Your task to perform on an android device: Go to sound settings Image 0: 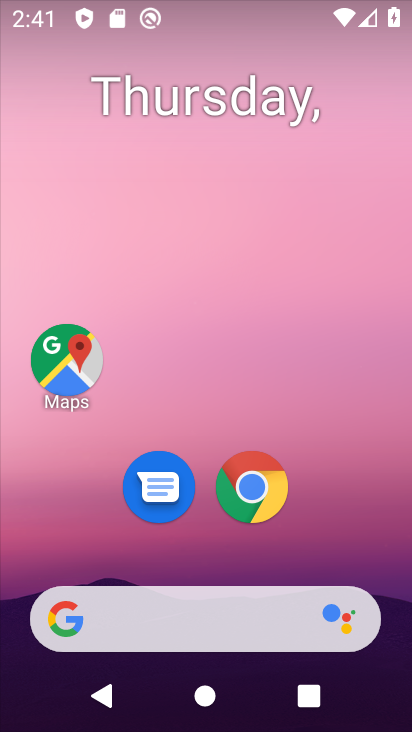
Step 0: drag from (355, 499) to (250, 0)
Your task to perform on an android device: Go to sound settings Image 1: 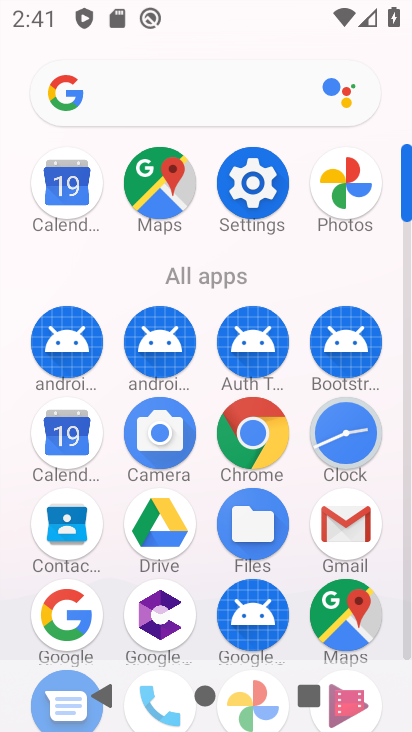
Step 1: click (249, 199)
Your task to perform on an android device: Go to sound settings Image 2: 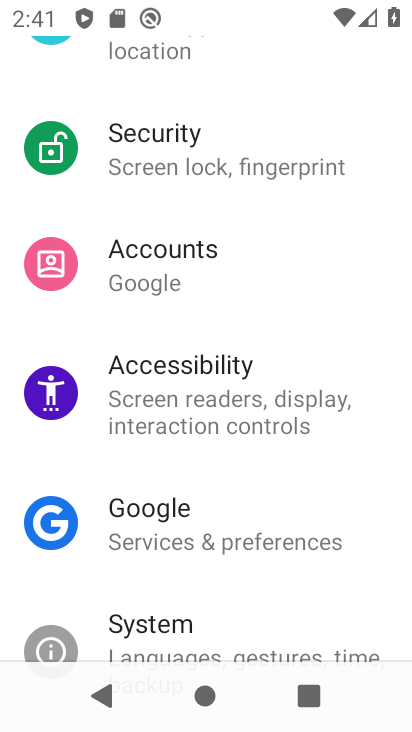
Step 2: drag from (247, 583) to (207, 234)
Your task to perform on an android device: Go to sound settings Image 3: 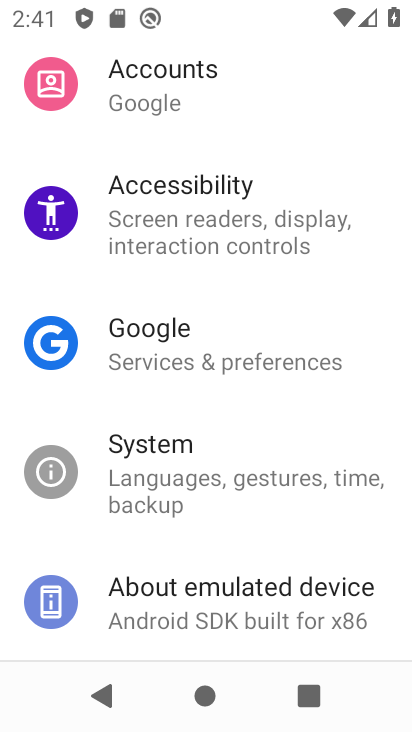
Step 3: drag from (209, 247) to (288, 610)
Your task to perform on an android device: Go to sound settings Image 4: 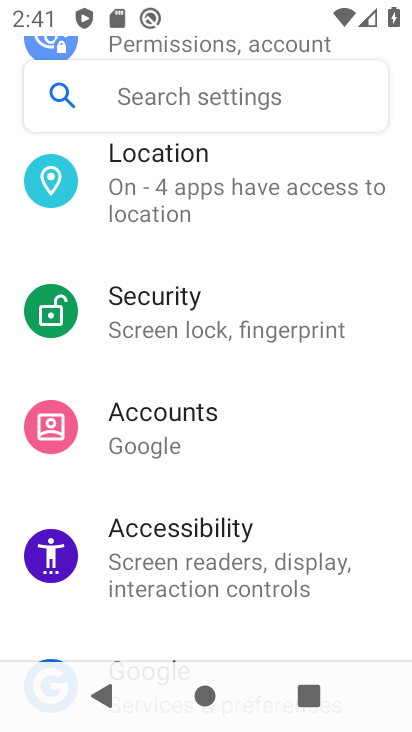
Step 4: drag from (280, 289) to (306, 580)
Your task to perform on an android device: Go to sound settings Image 5: 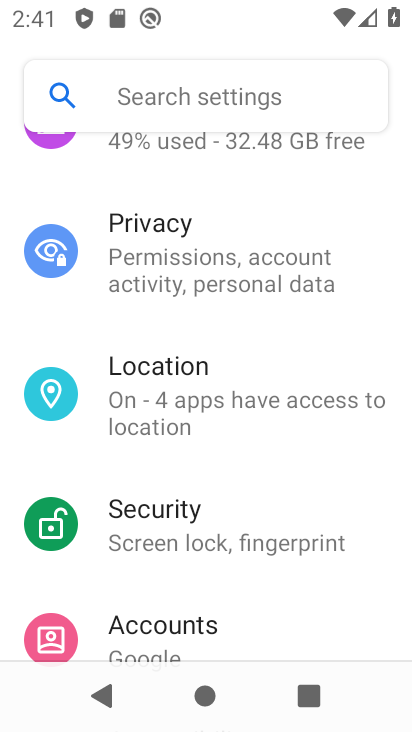
Step 5: drag from (224, 296) to (236, 537)
Your task to perform on an android device: Go to sound settings Image 6: 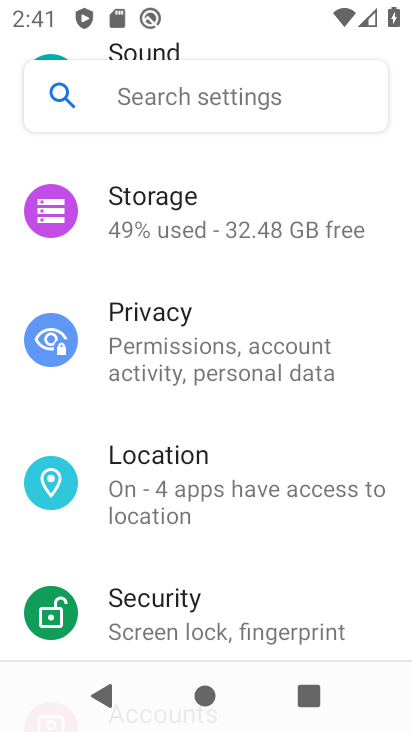
Step 6: drag from (175, 263) to (202, 558)
Your task to perform on an android device: Go to sound settings Image 7: 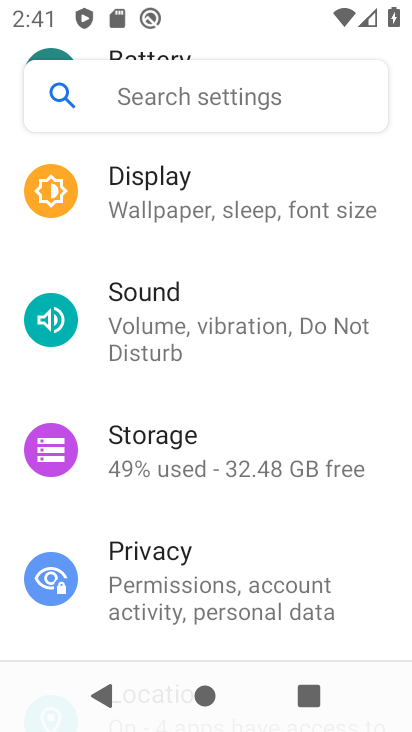
Step 7: click (193, 310)
Your task to perform on an android device: Go to sound settings Image 8: 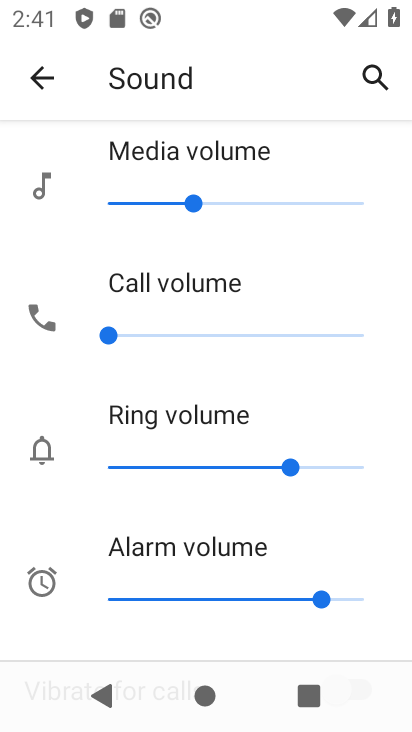
Step 8: task complete